Your task to perform on an android device: toggle show notifications on the lock screen Image 0: 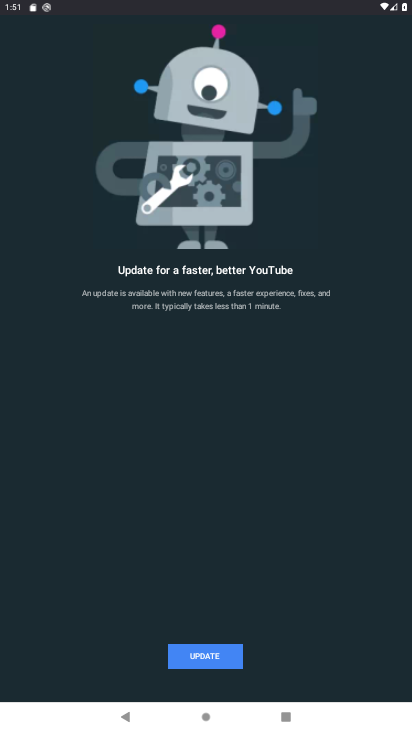
Step 0: press home button
Your task to perform on an android device: toggle show notifications on the lock screen Image 1: 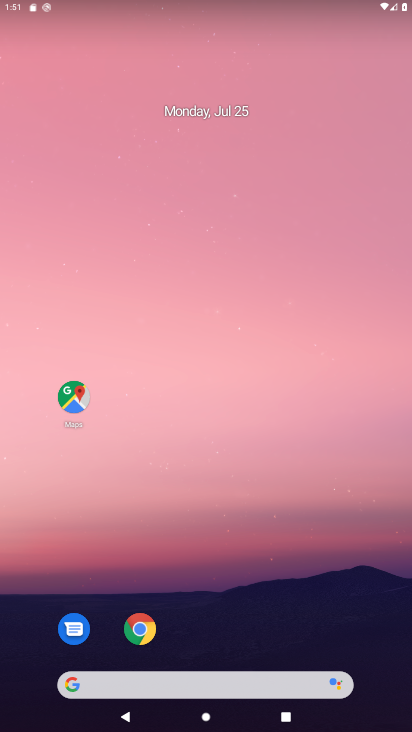
Step 1: drag from (320, 598) to (298, 128)
Your task to perform on an android device: toggle show notifications on the lock screen Image 2: 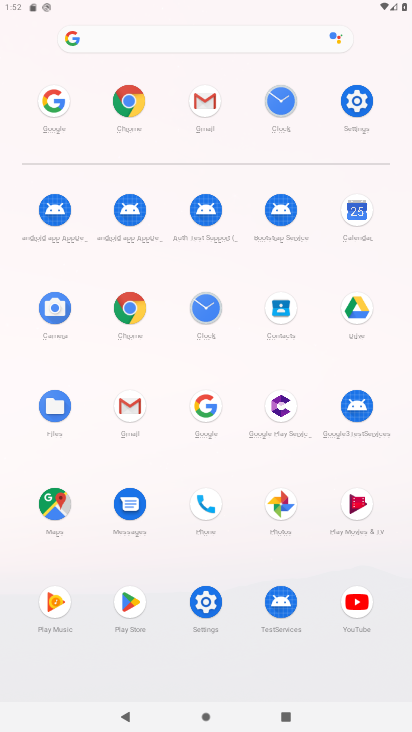
Step 2: click (355, 115)
Your task to perform on an android device: toggle show notifications on the lock screen Image 3: 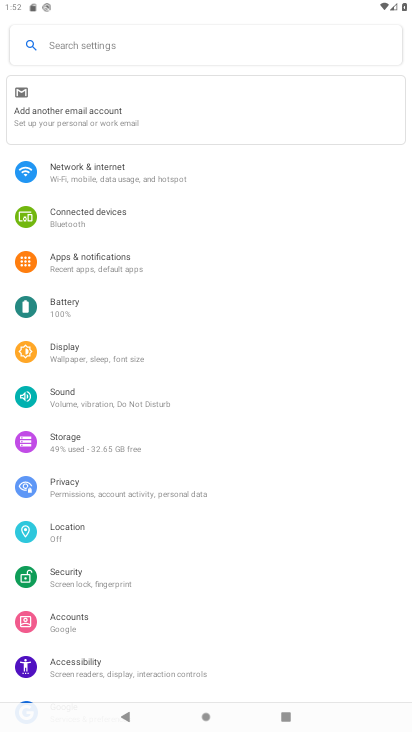
Step 3: click (105, 266)
Your task to perform on an android device: toggle show notifications on the lock screen Image 4: 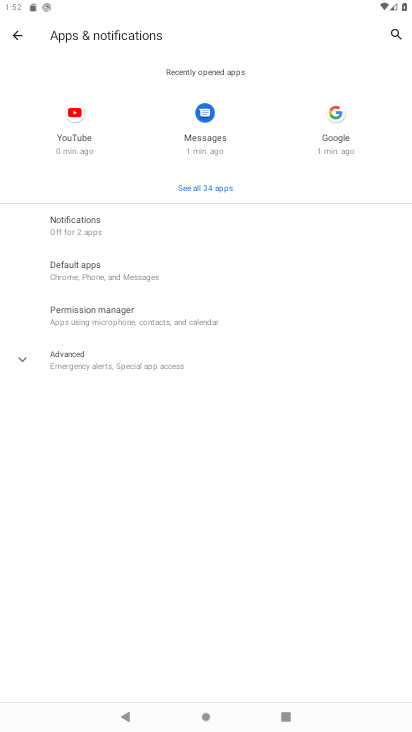
Step 4: click (69, 216)
Your task to perform on an android device: toggle show notifications on the lock screen Image 5: 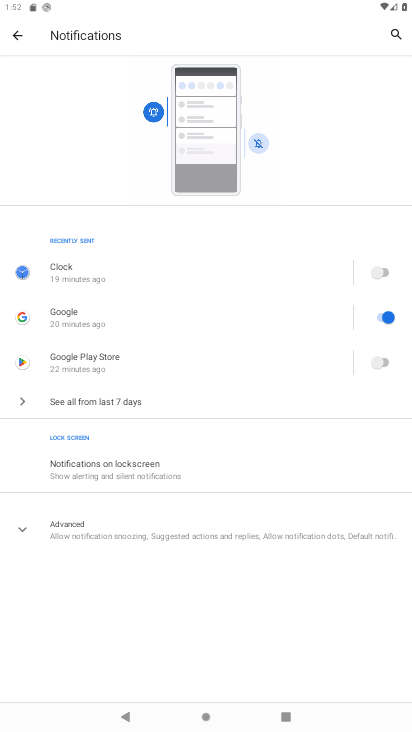
Step 5: click (184, 480)
Your task to perform on an android device: toggle show notifications on the lock screen Image 6: 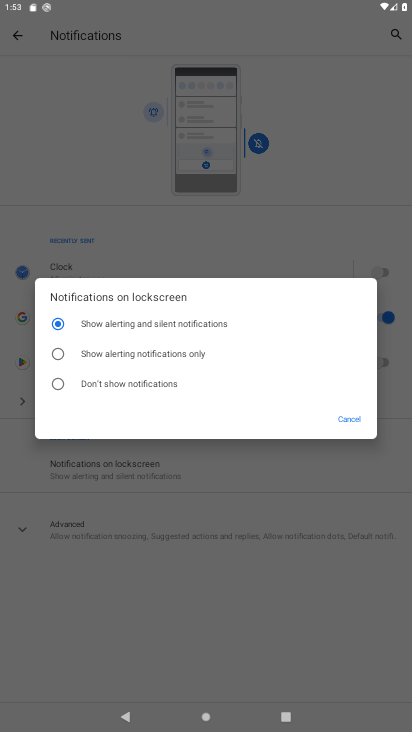
Step 6: click (87, 353)
Your task to perform on an android device: toggle show notifications on the lock screen Image 7: 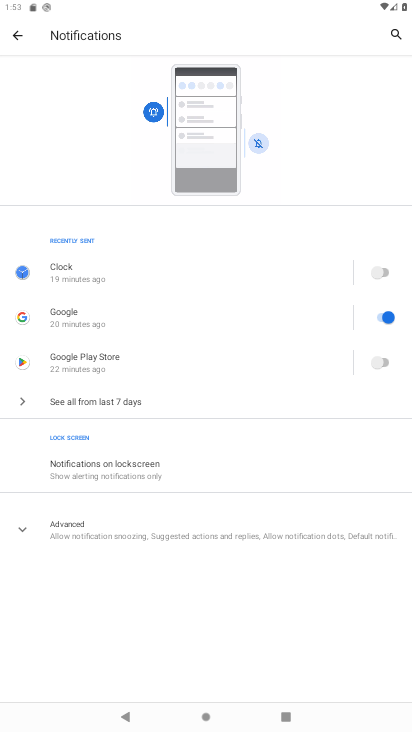
Step 7: task complete